Your task to perform on an android device: Open calendar and show me the second week of next month Image 0: 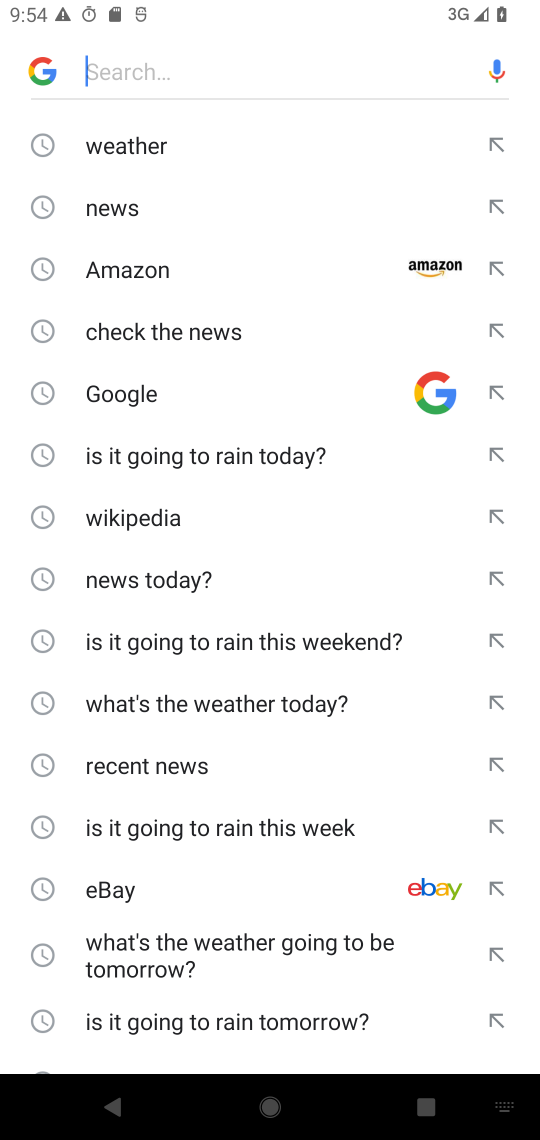
Step 0: press home button
Your task to perform on an android device: Open calendar and show me the second week of next month Image 1: 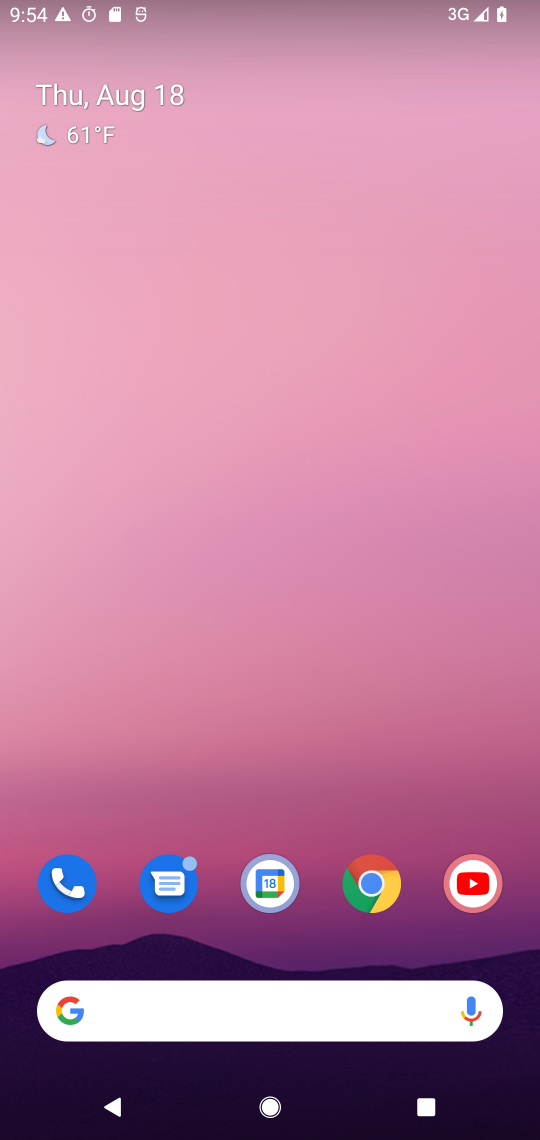
Step 1: click (262, 890)
Your task to perform on an android device: Open calendar and show me the second week of next month Image 2: 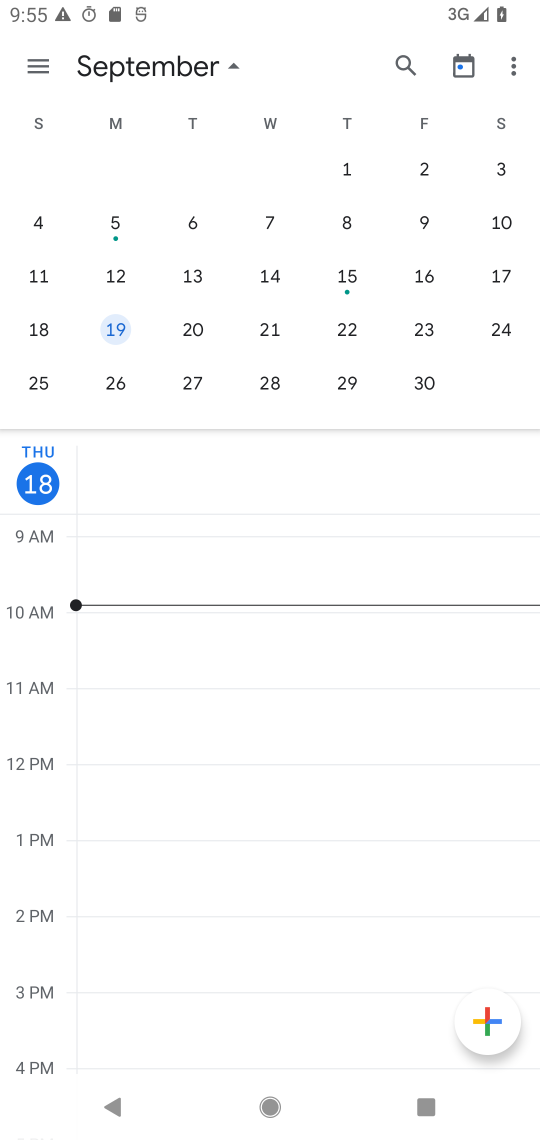
Step 2: click (121, 222)
Your task to perform on an android device: Open calendar and show me the second week of next month Image 3: 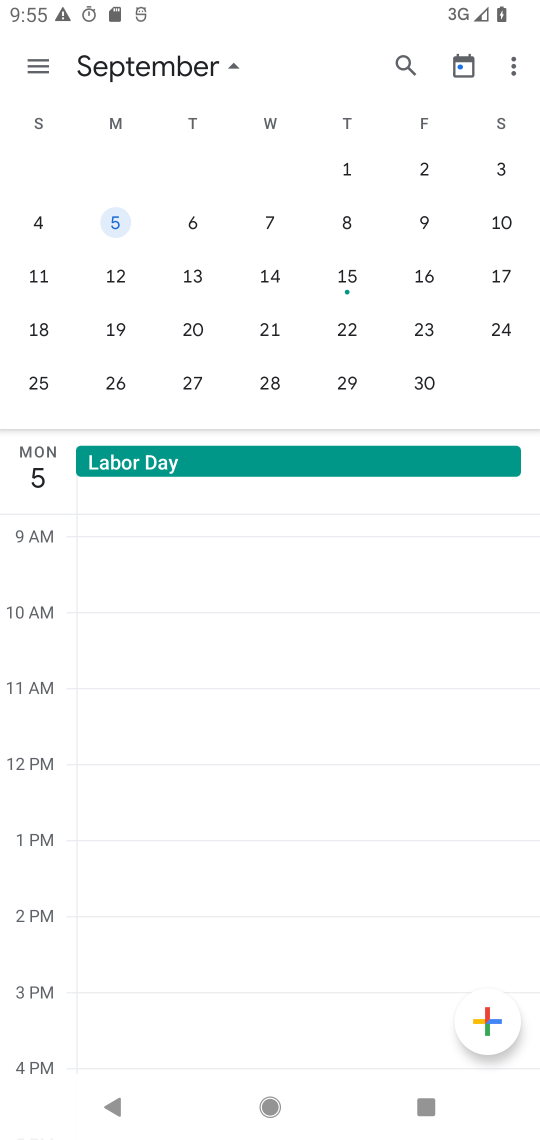
Step 3: task complete